Your task to perform on an android device: Go to Google Image 0: 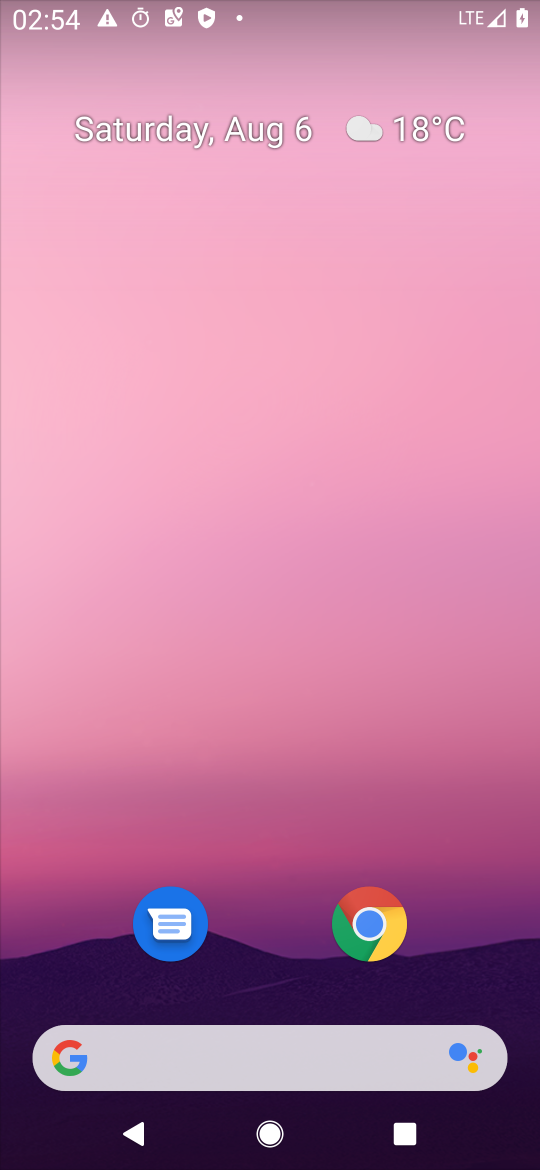
Step 0: drag from (401, 1066) to (405, 177)
Your task to perform on an android device: Go to Google Image 1: 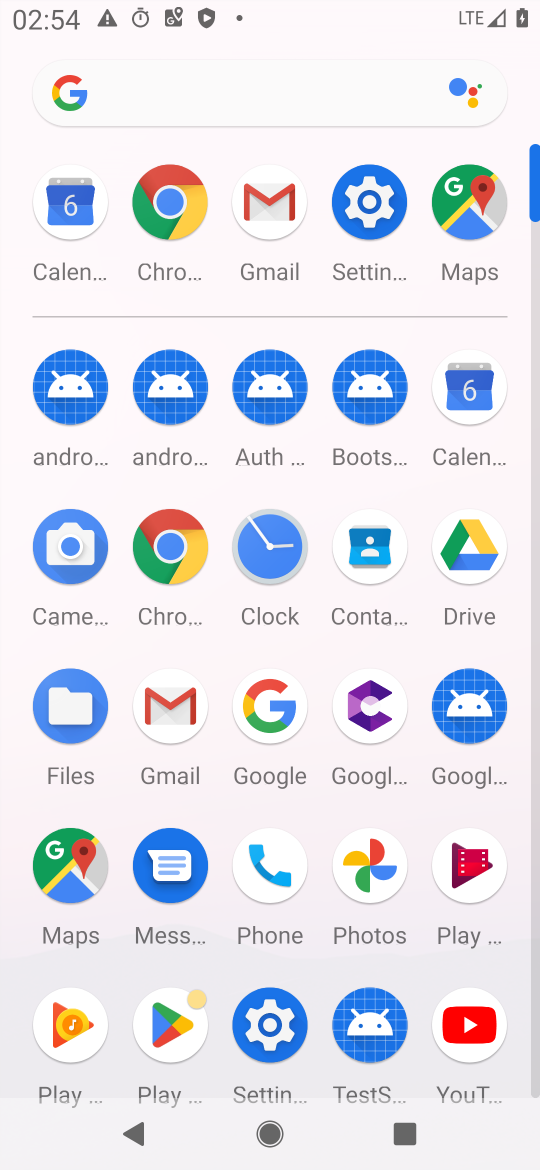
Step 1: click (161, 573)
Your task to perform on an android device: Go to Google Image 2: 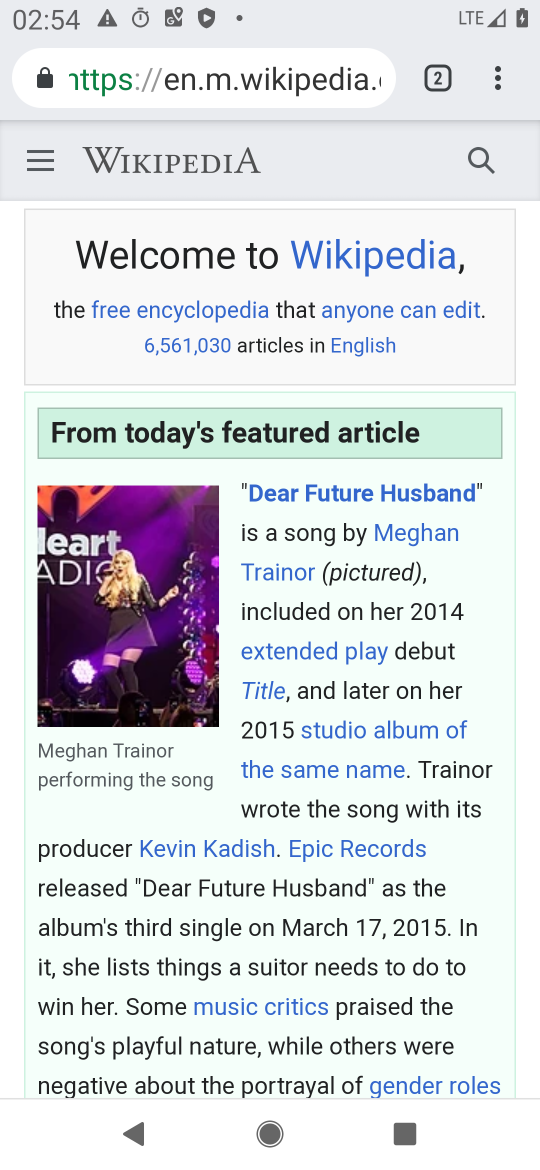
Step 2: task complete